Your task to perform on an android device: What's the news? Image 0: 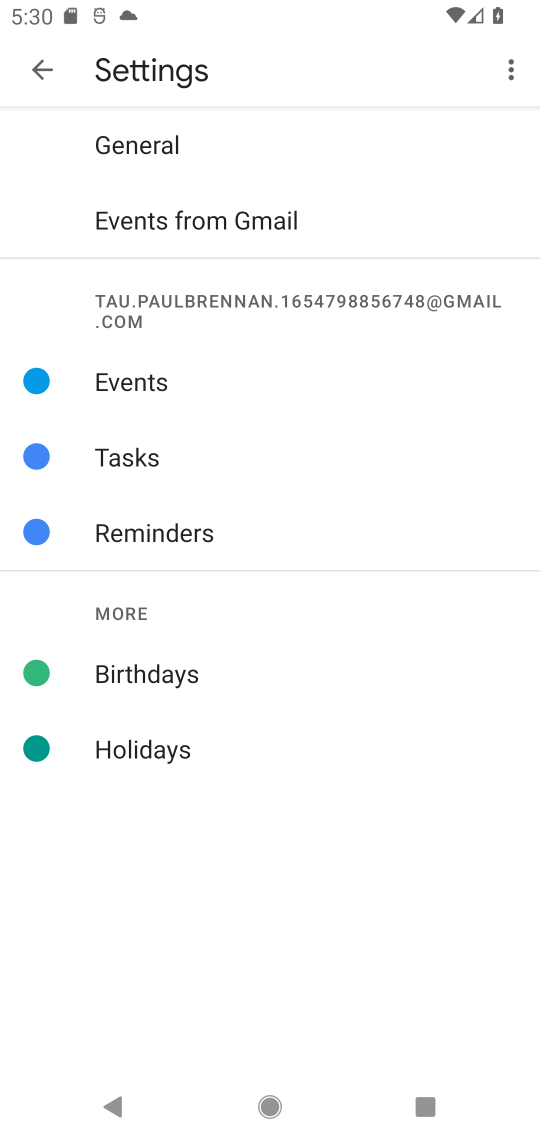
Step 0: press home button
Your task to perform on an android device: What's the news? Image 1: 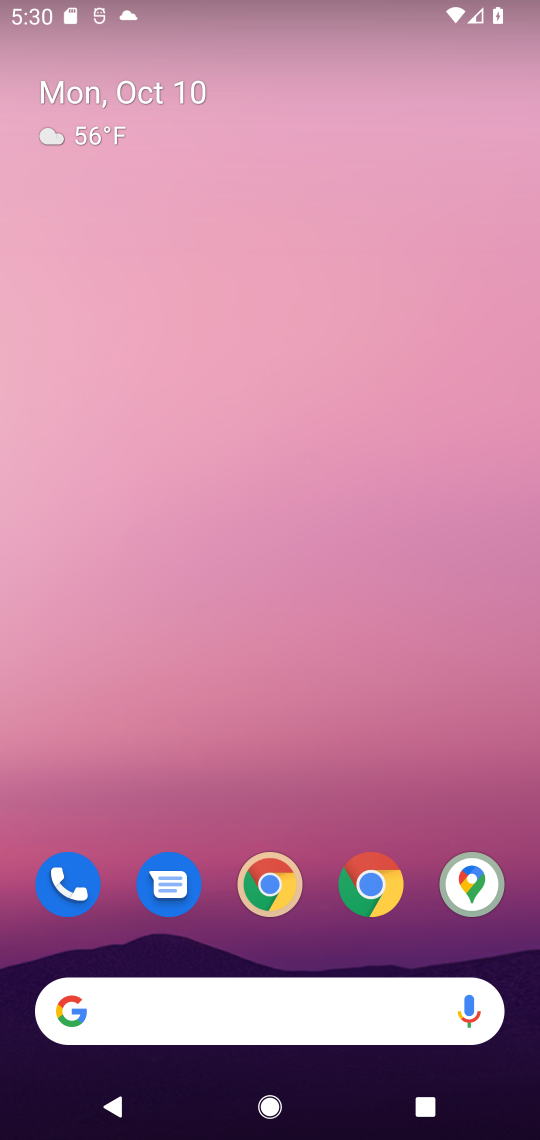
Step 1: click (235, 1004)
Your task to perform on an android device: What's the news? Image 2: 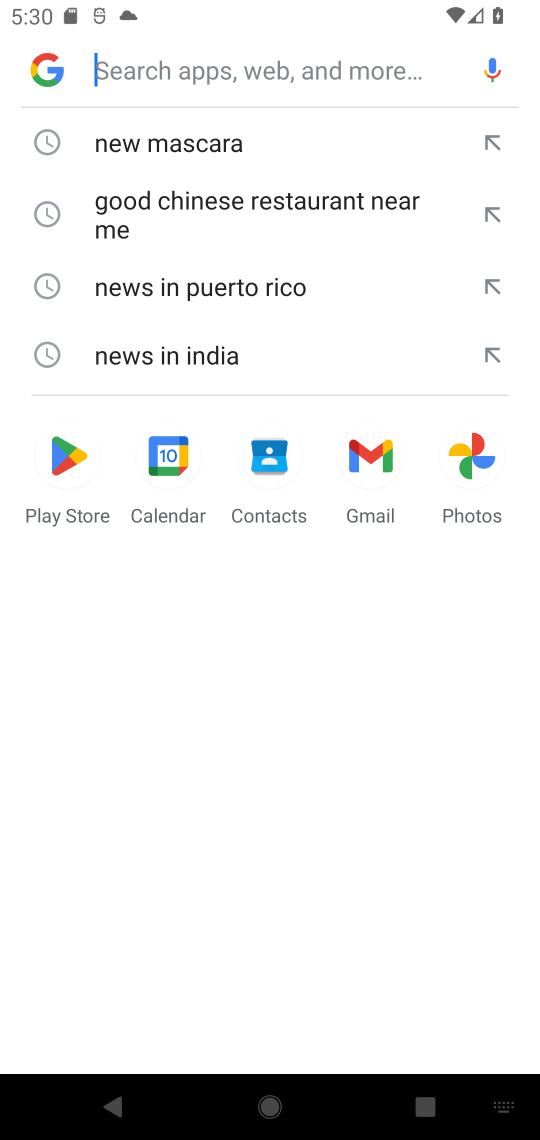
Step 2: type "news"
Your task to perform on an android device: What's the news? Image 3: 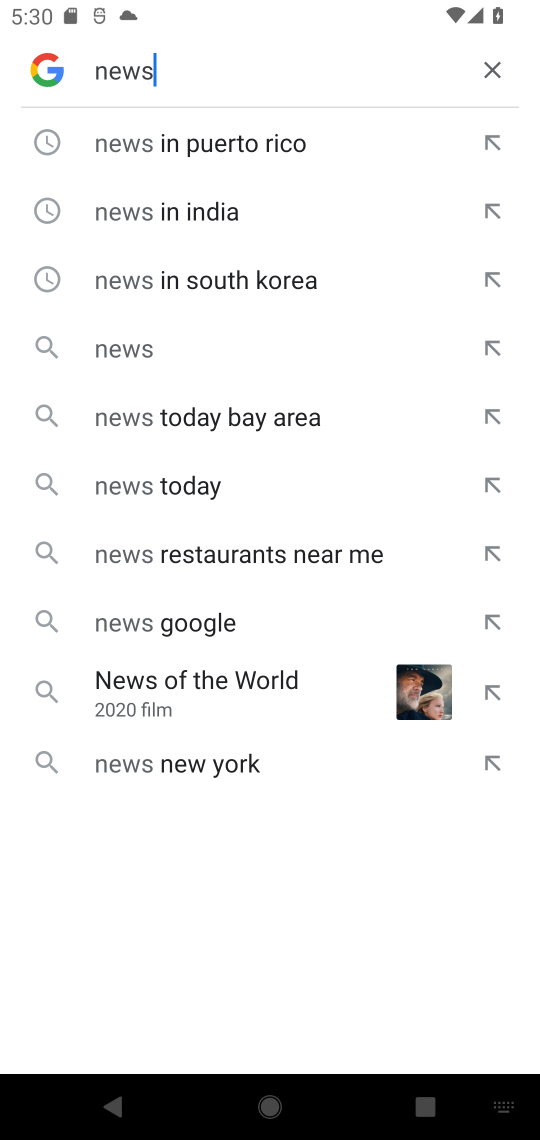
Step 3: click (206, 220)
Your task to perform on an android device: What's the news? Image 4: 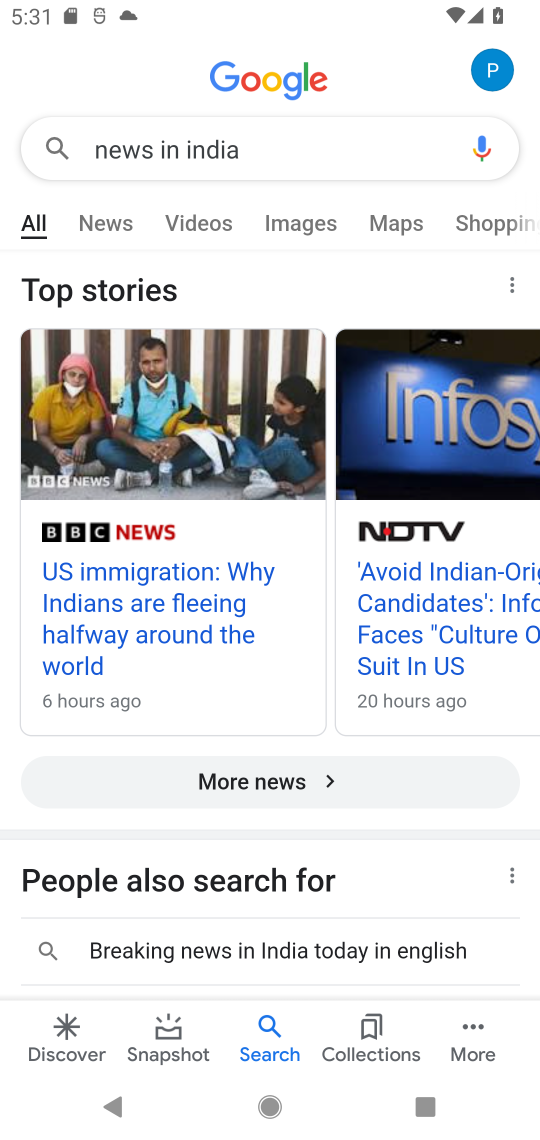
Step 4: click (131, 638)
Your task to perform on an android device: What's the news? Image 5: 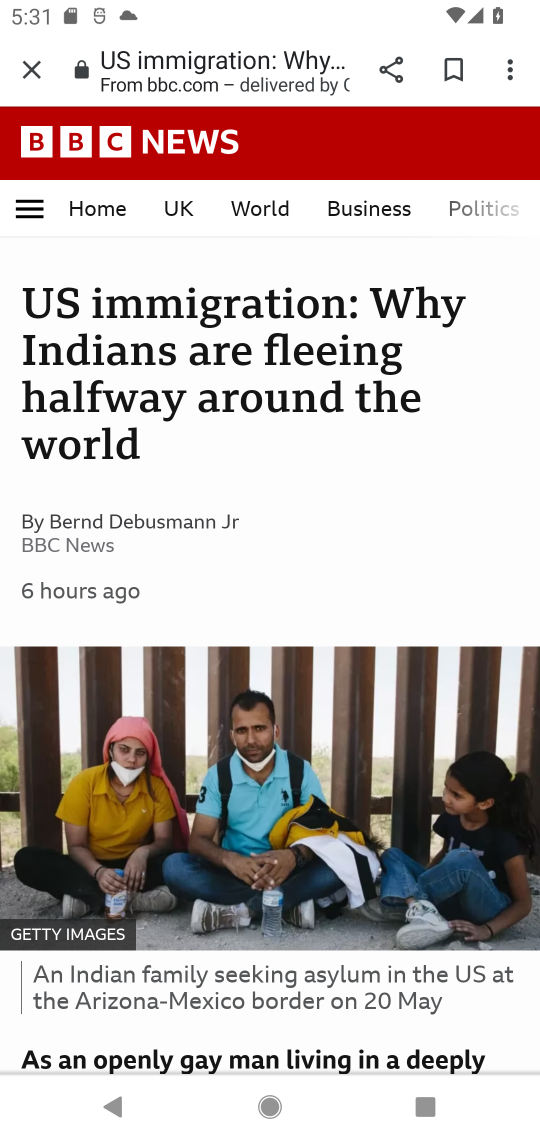
Step 5: task complete